Your task to perform on an android device: open app "Chime – Mobile Banking" (install if not already installed) and go to login screen Image 0: 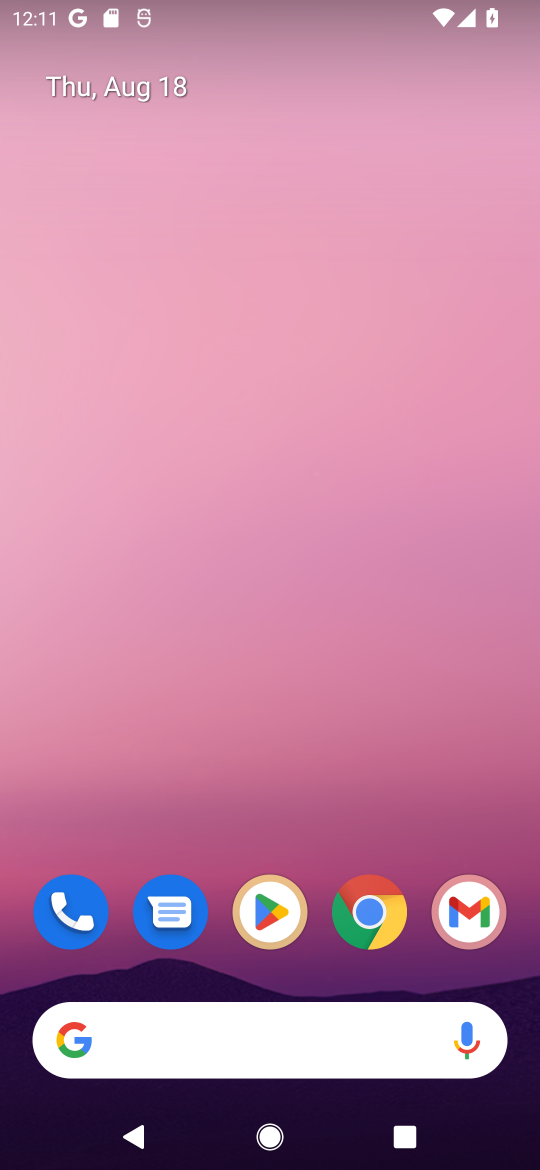
Step 0: click (248, 915)
Your task to perform on an android device: open app "Chime – Mobile Banking" (install if not already installed) and go to login screen Image 1: 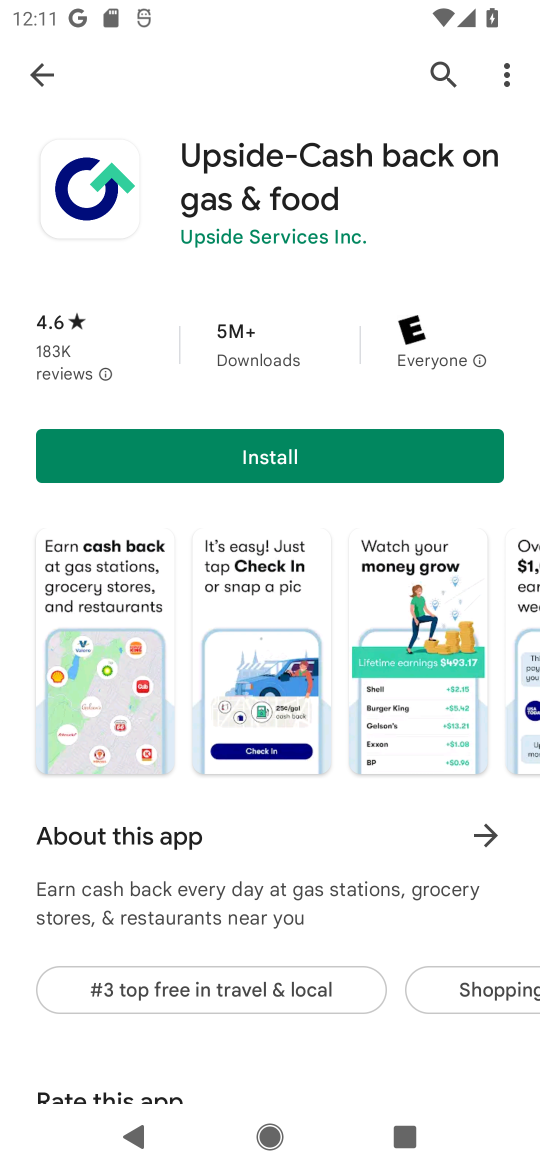
Step 1: click (430, 63)
Your task to perform on an android device: open app "Chime – Mobile Banking" (install if not already installed) and go to login screen Image 2: 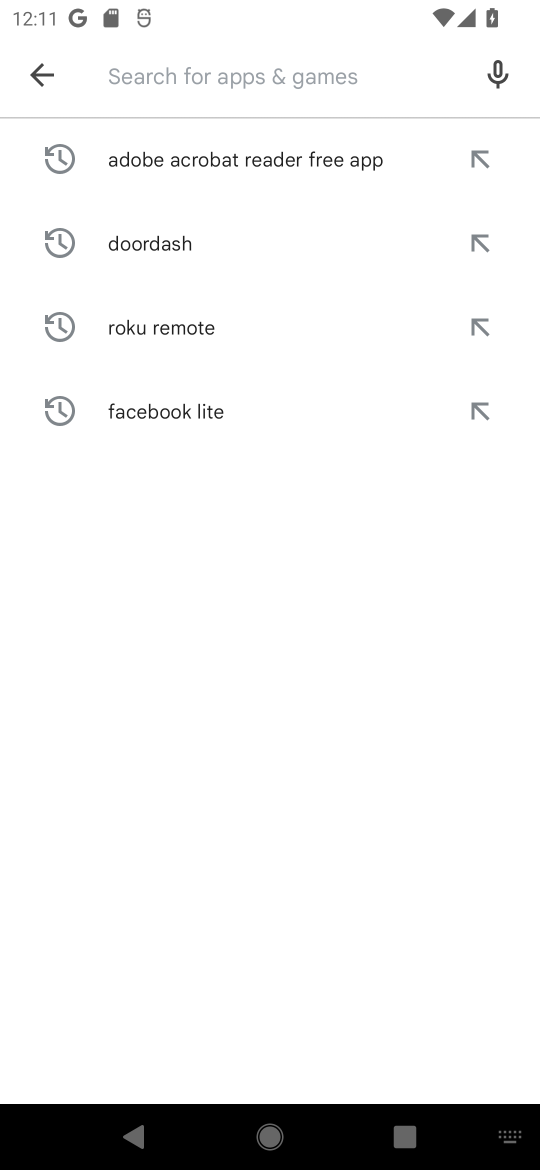
Step 2: click (193, 75)
Your task to perform on an android device: open app "Chime – Mobile Banking" (install if not already installed) and go to login screen Image 3: 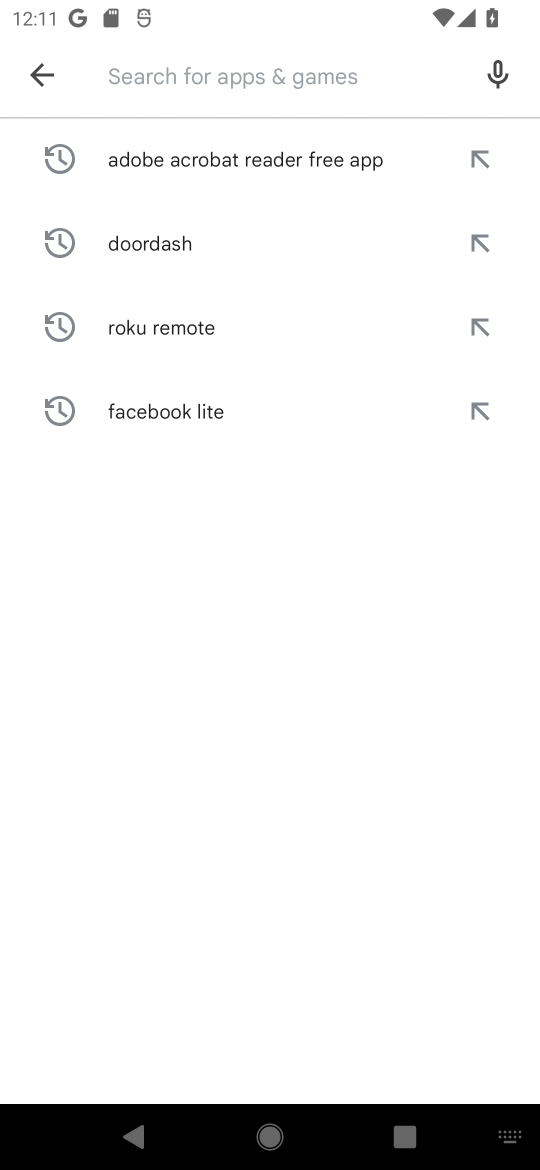
Step 3: type "chime"
Your task to perform on an android device: open app "Chime – Mobile Banking" (install if not already installed) and go to login screen Image 4: 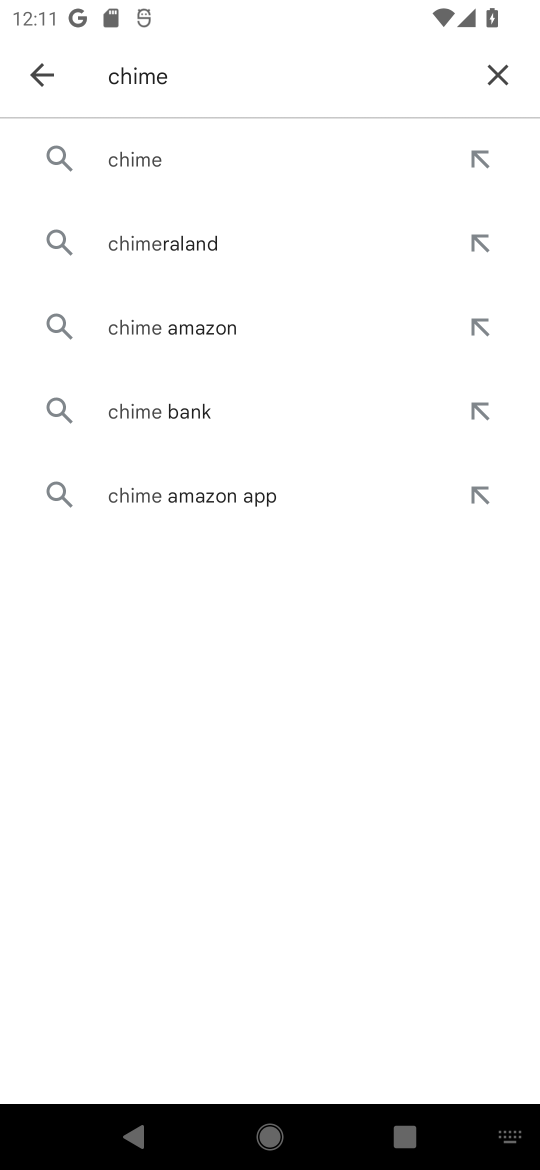
Step 4: click (179, 155)
Your task to perform on an android device: open app "Chime – Mobile Banking" (install if not already installed) and go to login screen Image 5: 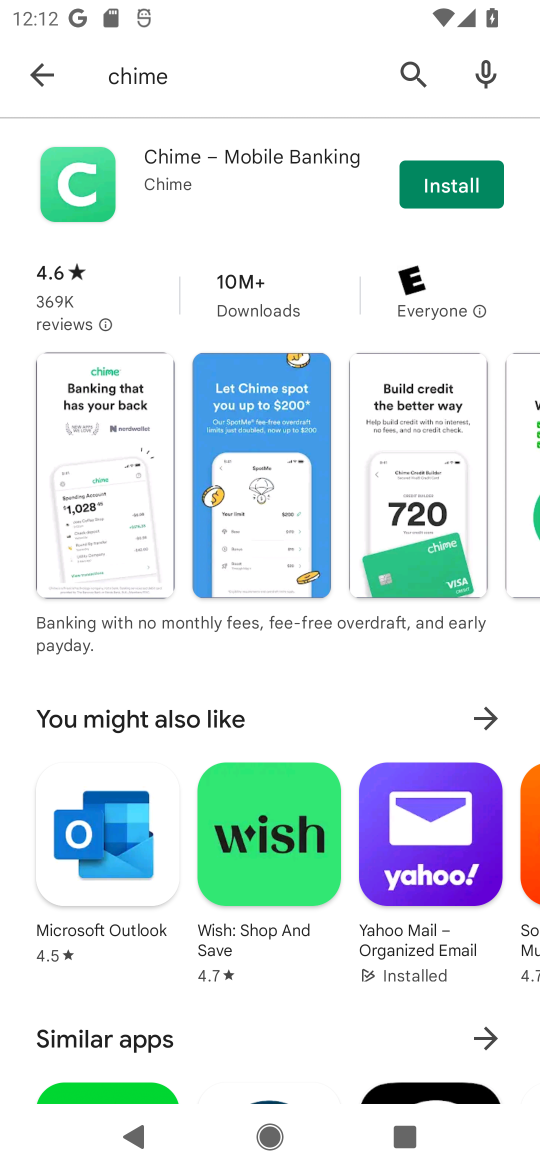
Step 5: click (437, 185)
Your task to perform on an android device: open app "Chime – Mobile Banking" (install if not already installed) and go to login screen Image 6: 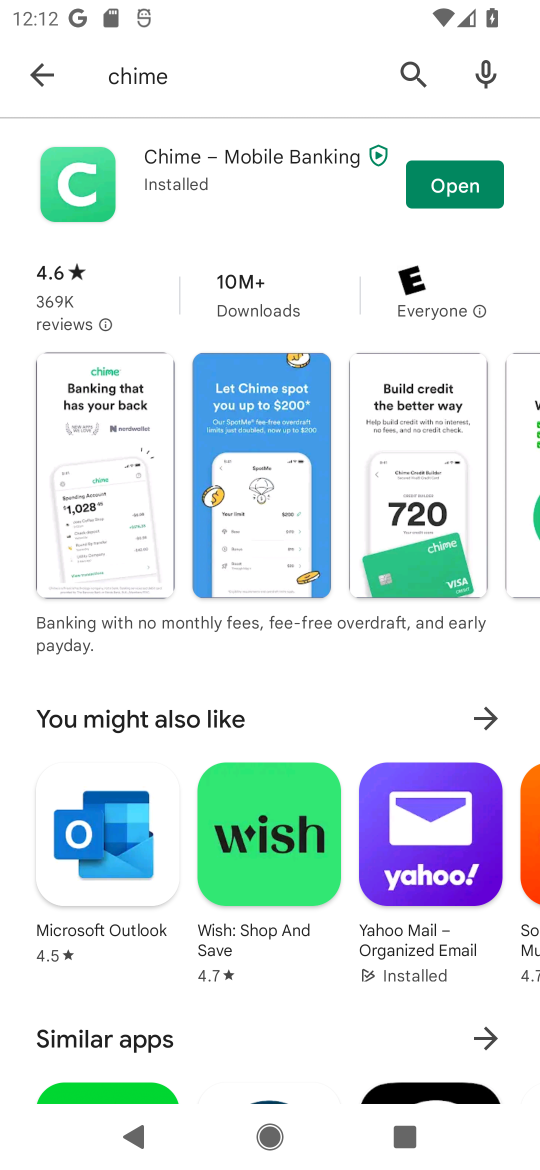
Step 6: click (464, 189)
Your task to perform on an android device: open app "Chime – Mobile Banking" (install if not already installed) and go to login screen Image 7: 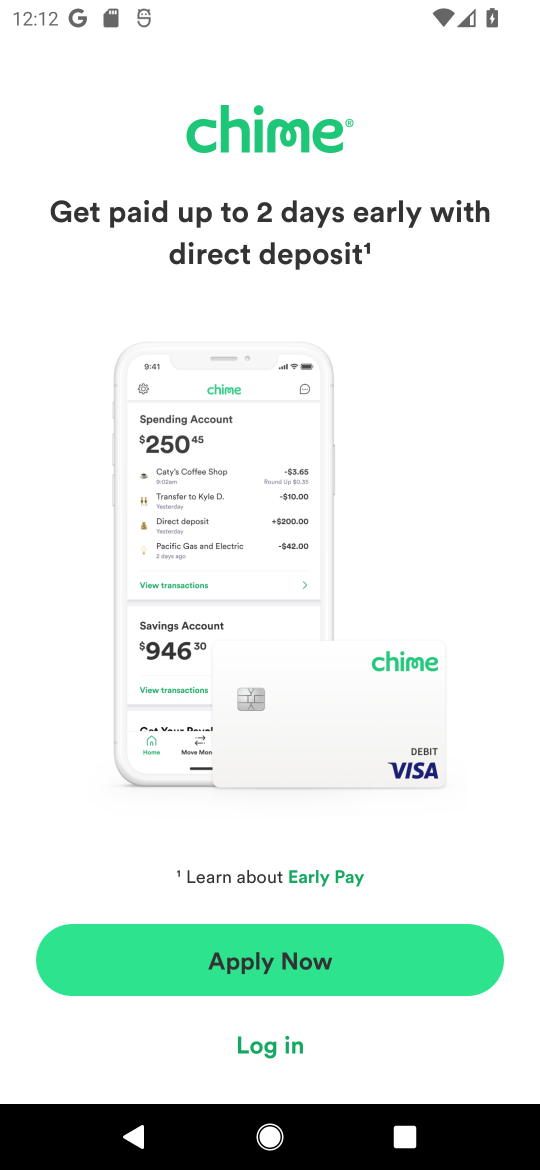
Step 7: click (236, 1037)
Your task to perform on an android device: open app "Chime – Mobile Banking" (install if not already installed) and go to login screen Image 8: 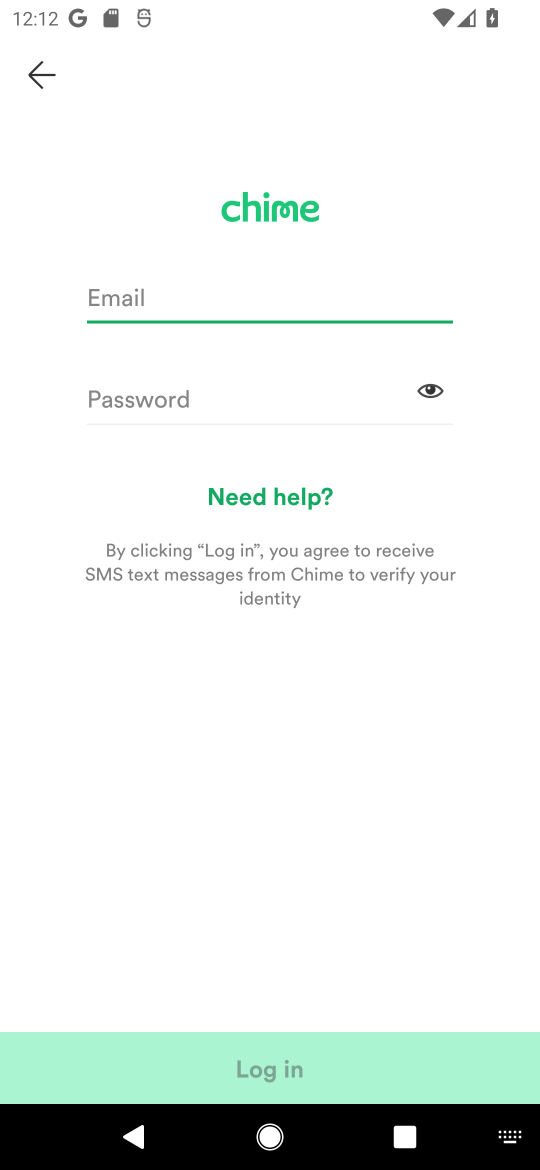
Step 8: task complete